Your task to perform on an android device: manage bookmarks in the chrome app Image 0: 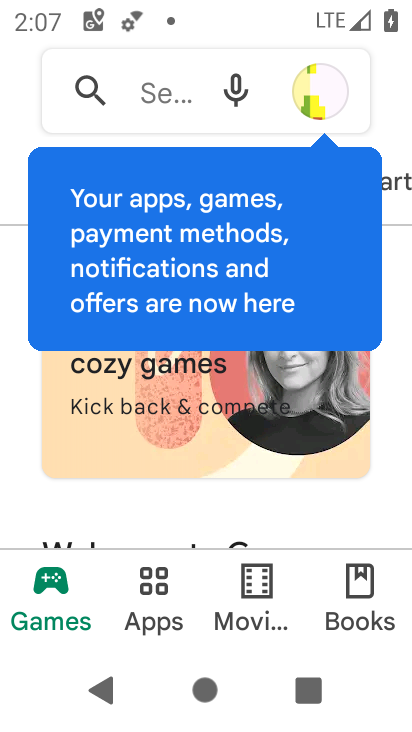
Step 0: press home button
Your task to perform on an android device: manage bookmarks in the chrome app Image 1: 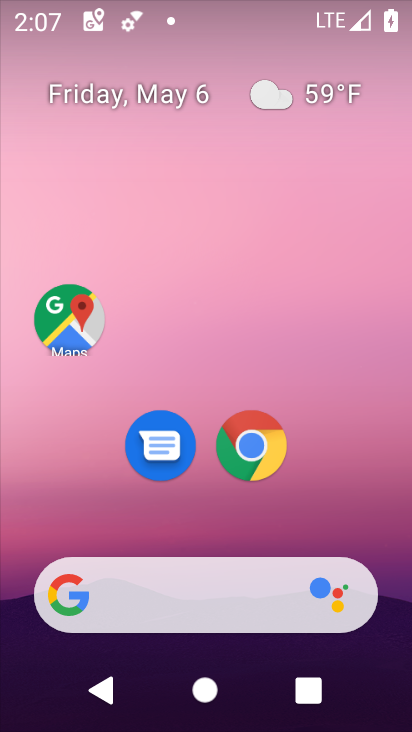
Step 1: click (259, 445)
Your task to perform on an android device: manage bookmarks in the chrome app Image 2: 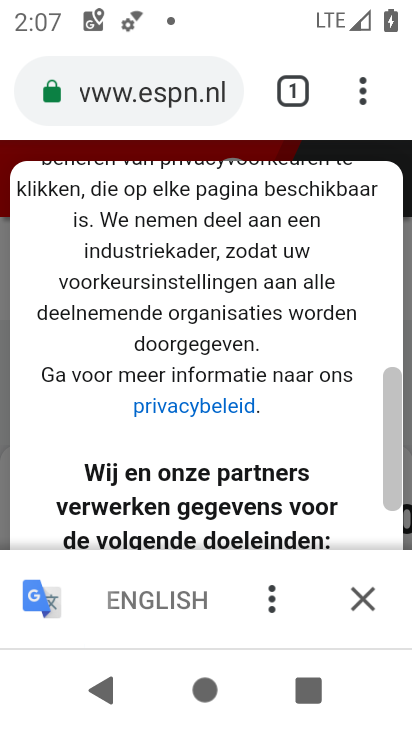
Step 2: click (360, 98)
Your task to perform on an android device: manage bookmarks in the chrome app Image 3: 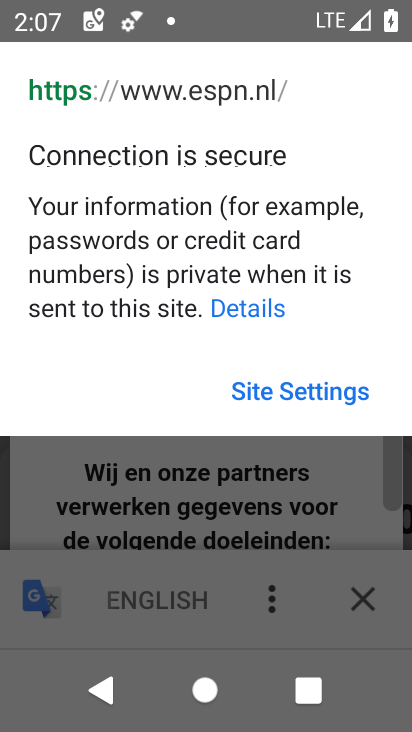
Step 3: click (195, 513)
Your task to perform on an android device: manage bookmarks in the chrome app Image 4: 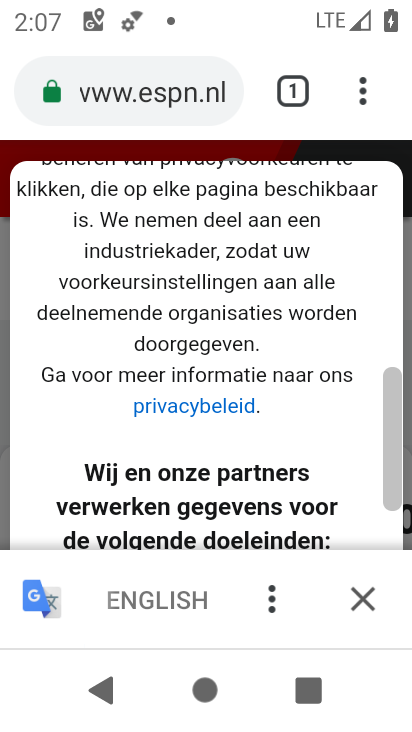
Step 4: click (354, 103)
Your task to perform on an android device: manage bookmarks in the chrome app Image 5: 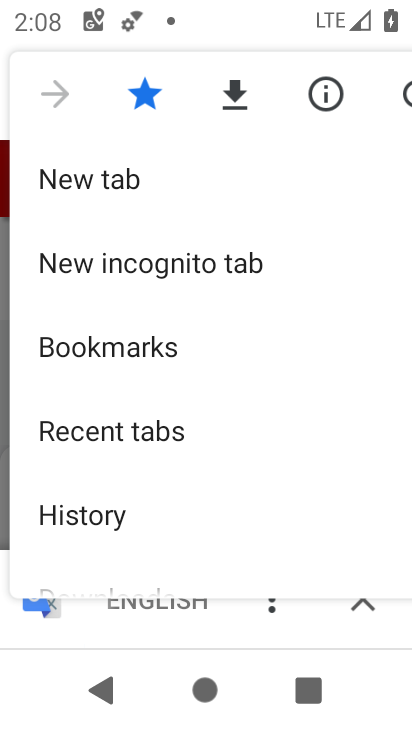
Step 5: click (190, 341)
Your task to perform on an android device: manage bookmarks in the chrome app Image 6: 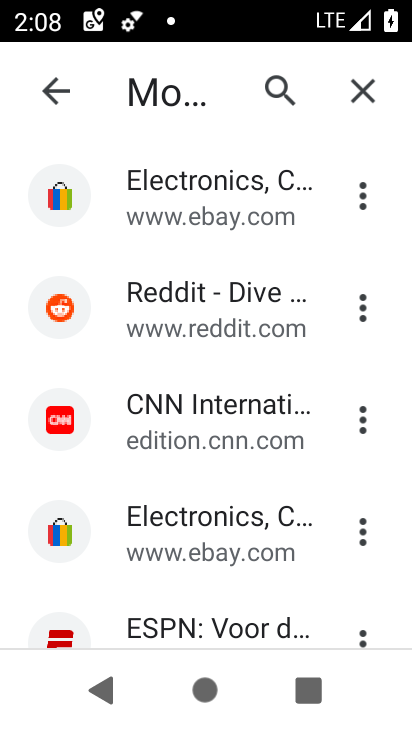
Step 6: click (363, 313)
Your task to perform on an android device: manage bookmarks in the chrome app Image 7: 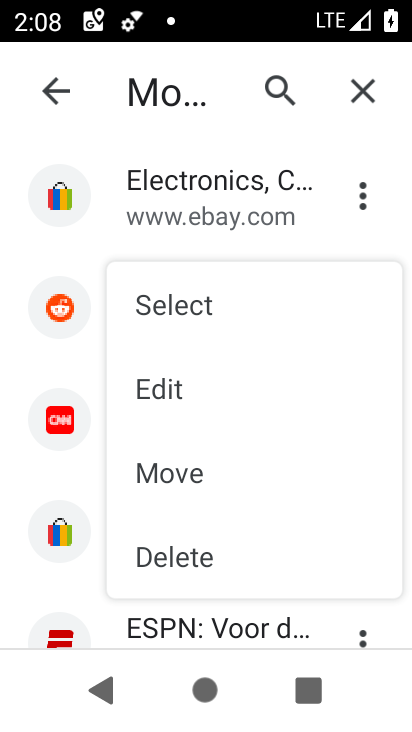
Step 7: click (235, 549)
Your task to perform on an android device: manage bookmarks in the chrome app Image 8: 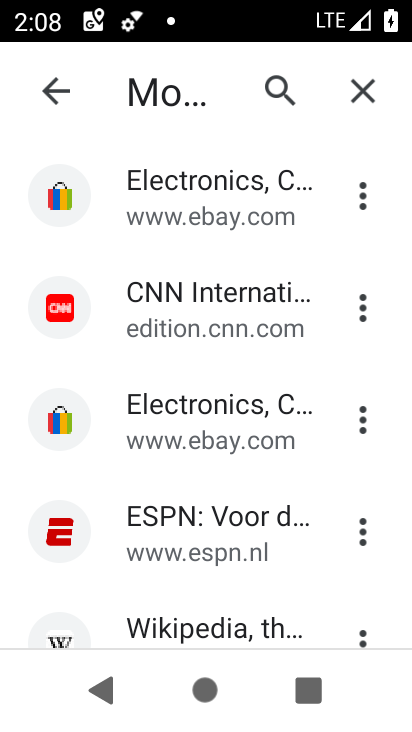
Step 8: task complete